Your task to perform on an android device: open app "Facebook Lite" Image 0: 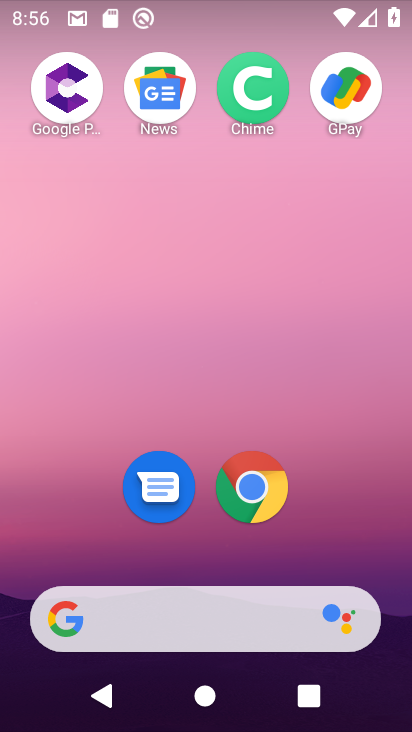
Step 0: drag from (219, 577) to (225, 5)
Your task to perform on an android device: open app "Facebook Lite" Image 1: 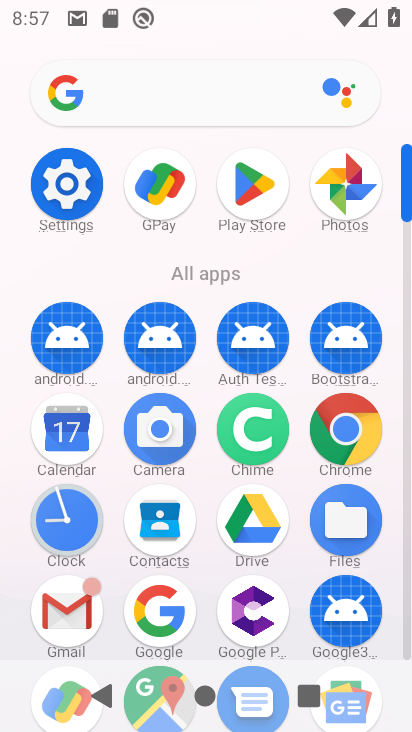
Step 1: click (255, 191)
Your task to perform on an android device: open app "Facebook Lite" Image 2: 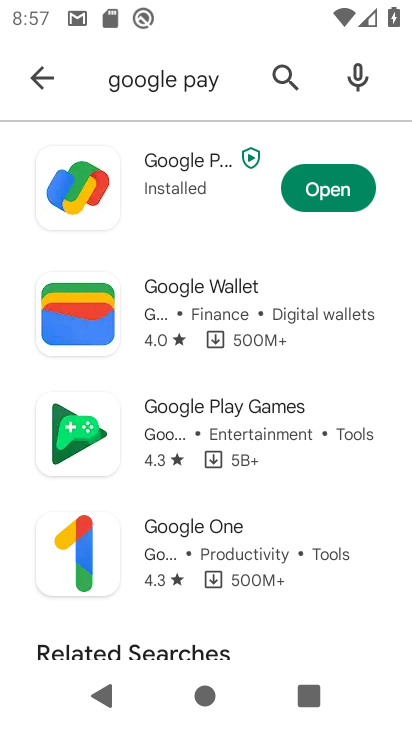
Step 2: click (290, 84)
Your task to perform on an android device: open app "Facebook Lite" Image 3: 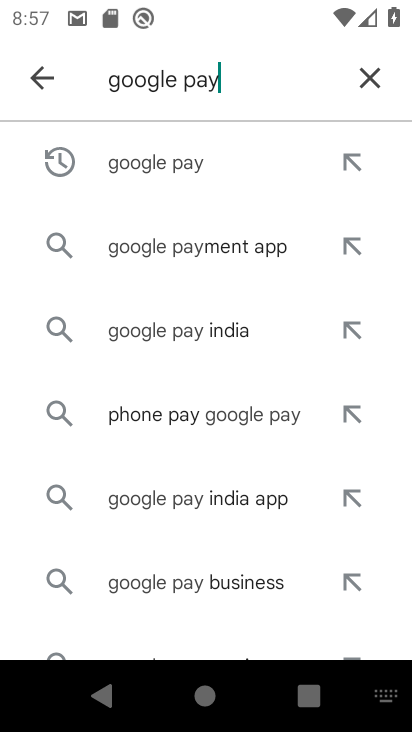
Step 3: click (368, 63)
Your task to perform on an android device: open app "Facebook Lite" Image 4: 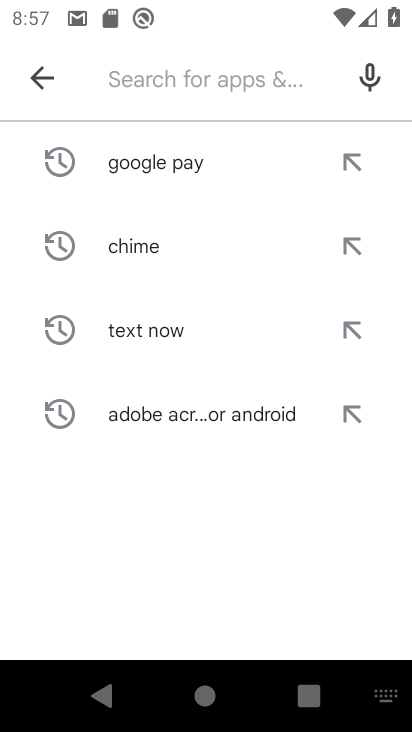
Step 4: click (168, 94)
Your task to perform on an android device: open app "Facebook Lite" Image 5: 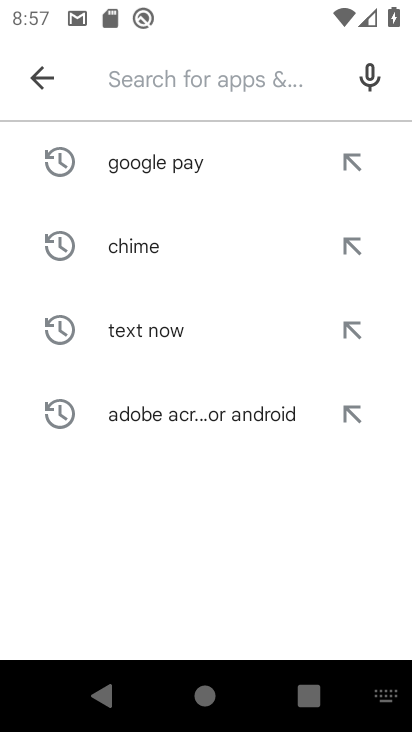
Step 5: type "facebook lite"
Your task to perform on an android device: open app "Facebook Lite" Image 6: 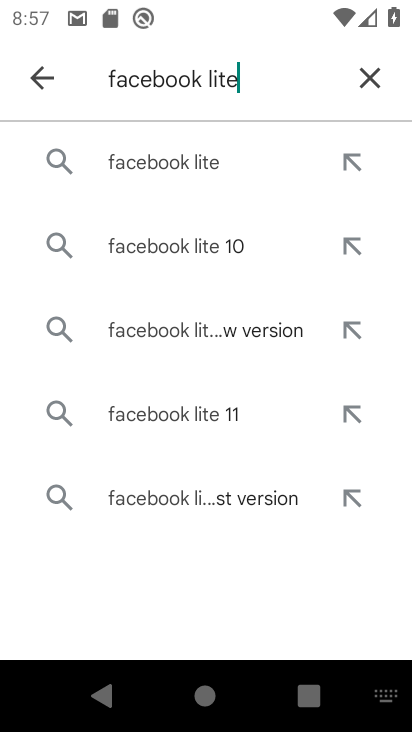
Step 6: click (200, 165)
Your task to perform on an android device: open app "Facebook Lite" Image 7: 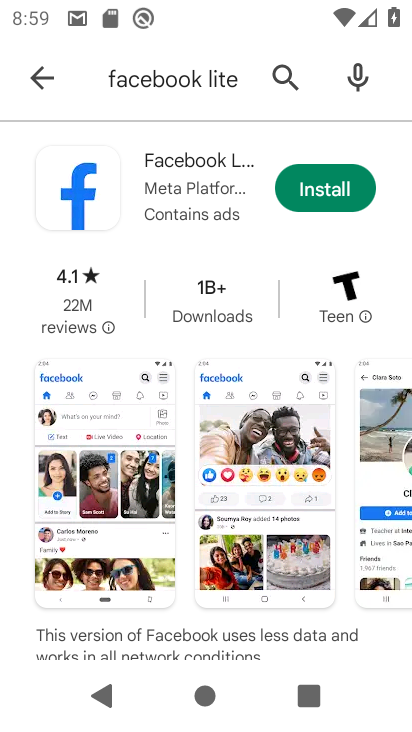
Step 7: click (198, 172)
Your task to perform on an android device: open app "Facebook Lite" Image 8: 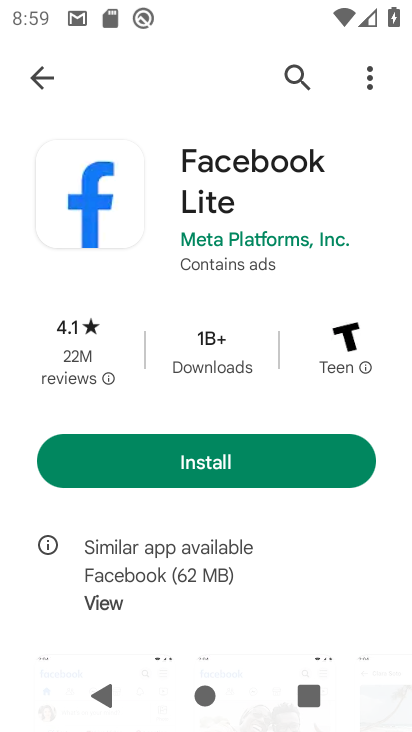
Step 8: task complete